Your task to perform on an android device: Open Google Chrome Image 0: 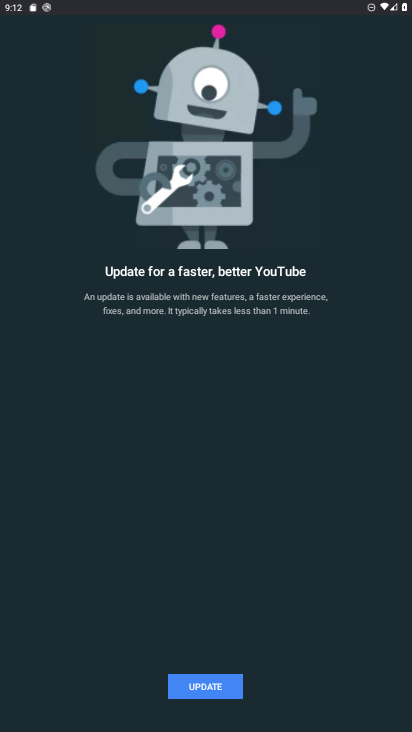
Step 0: press home button
Your task to perform on an android device: Open Google Chrome Image 1: 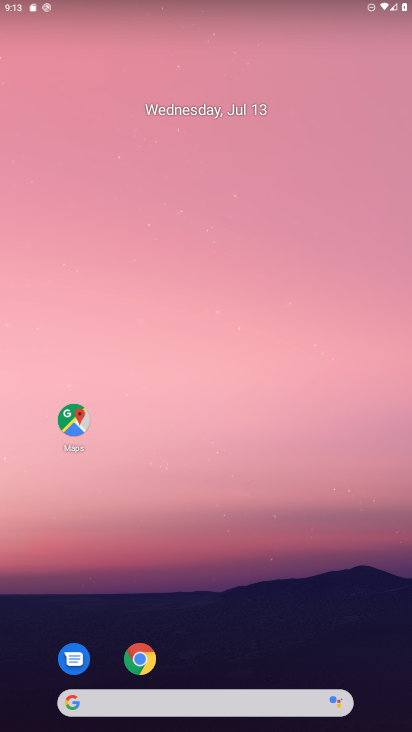
Step 1: click (145, 658)
Your task to perform on an android device: Open Google Chrome Image 2: 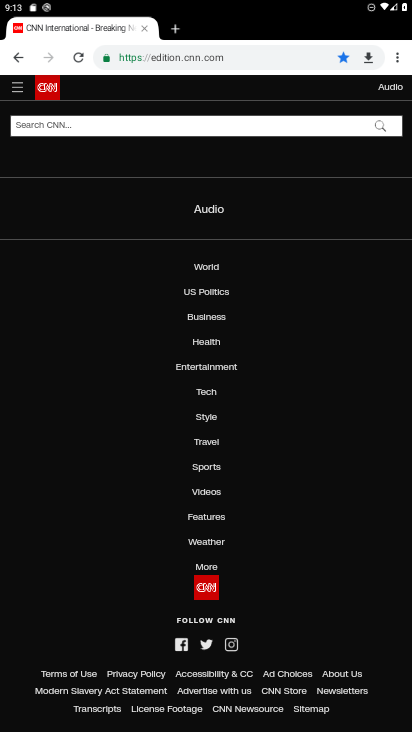
Step 2: task complete